Your task to perform on an android device: move an email to a new category in the gmail app Image 0: 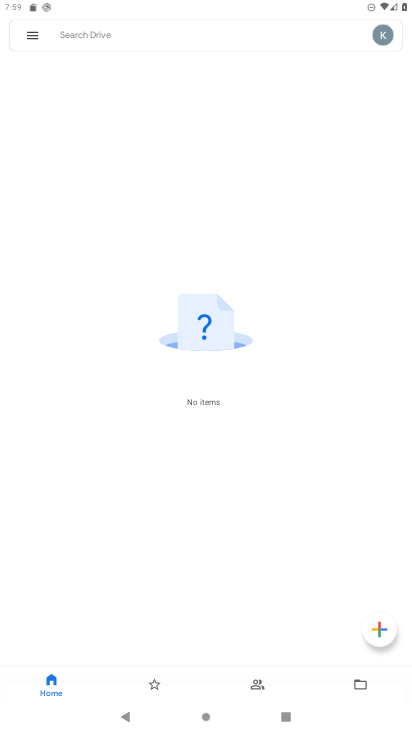
Step 0: press home button
Your task to perform on an android device: move an email to a new category in the gmail app Image 1: 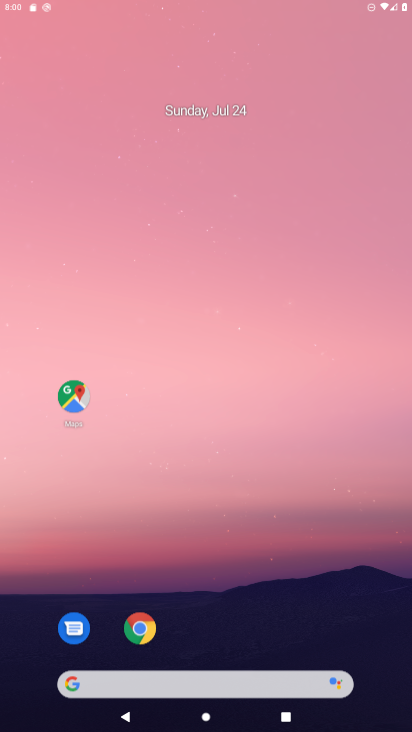
Step 1: drag from (318, 659) to (145, 70)
Your task to perform on an android device: move an email to a new category in the gmail app Image 2: 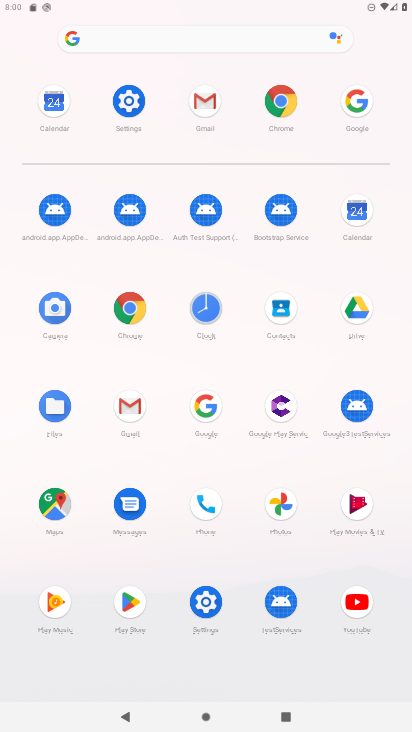
Step 2: click (128, 412)
Your task to perform on an android device: move an email to a new category in the gmail app Image 3: 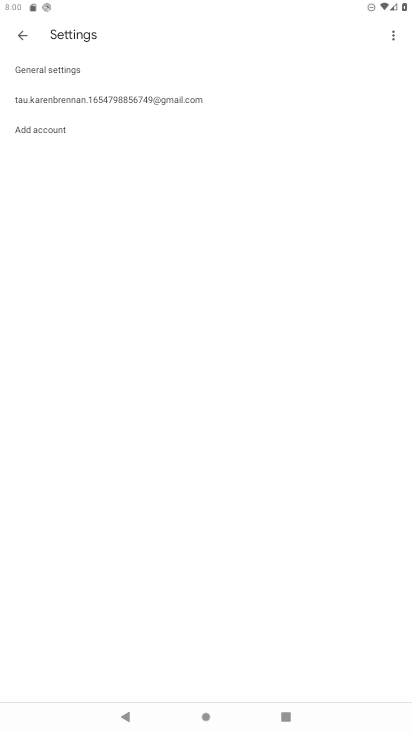
Step 3: task complete